Your task to perform on an android device: Open Amazon Image 0: 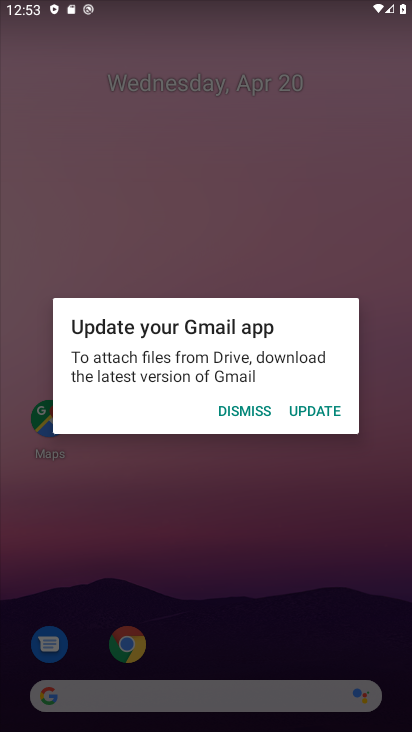
Step 0: press home button
Your task to perform on an android device: Open Amazon Image 1: 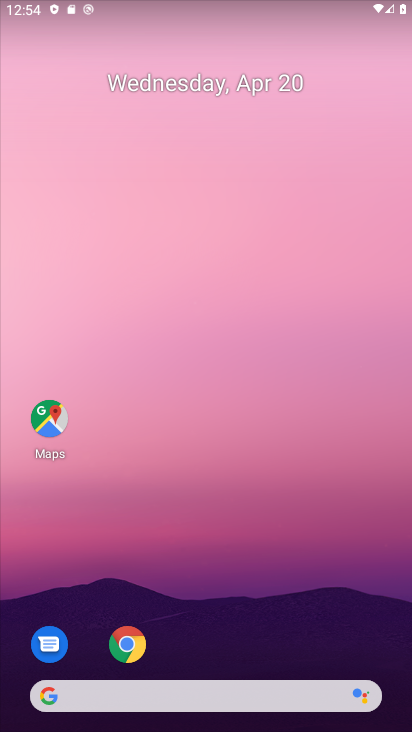
Step 1: click (130, 648)
Your task to perform on an android device: Open Amazon Image 2: 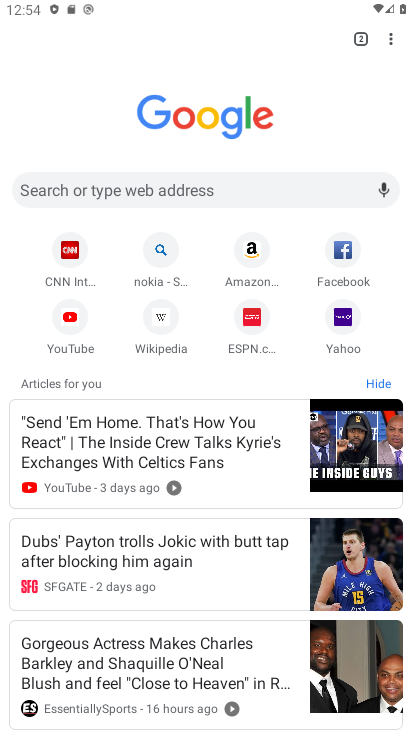
Step 2: click (250, 241)
Your task to perform on an android device: Open Amazon Image 3: 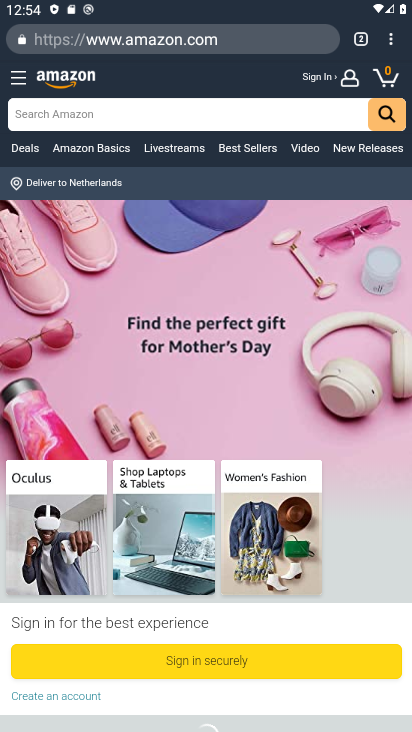
Step 3: task complete